Your task to perform on an android device: Is it going to rain tomorrow? Image 0: 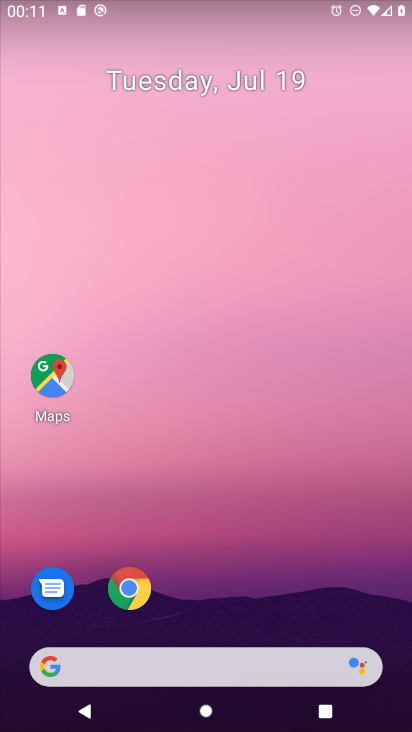
Step 0: drag from (3, 243) to (367, 271)
Your task to perform on an android device: Is it going to rain tomorrow? Image 1: 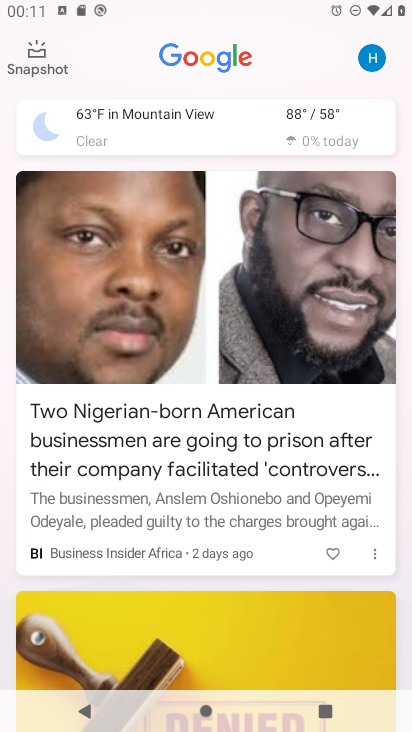
Step 1: click (306, 118)
Your task to perform on an android device: Is it going to rain tomorrow? Image 2: 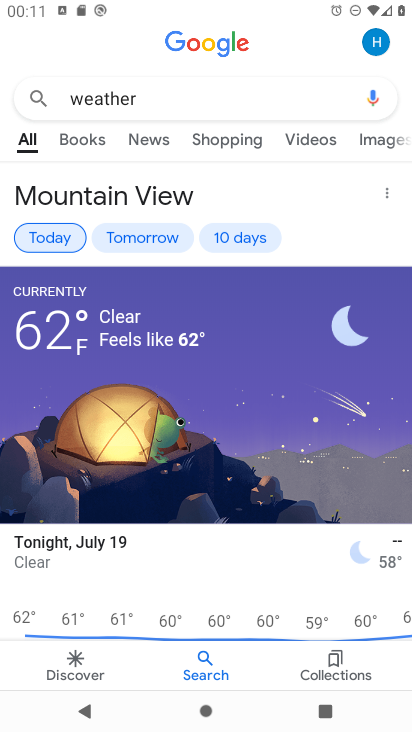
Step 2: click (146, 239)
Your task to perform on an android device: Is it going to rain tomorrow? Image 3: 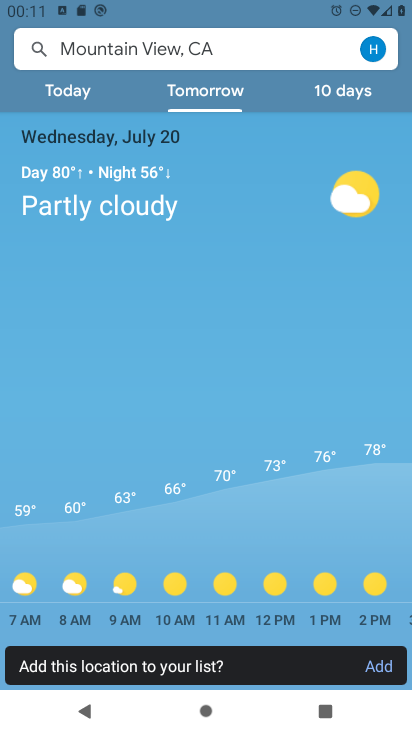
Step 3: task complete